Your task to perform on an android device: What's the weather going to be tomorrow? Image 0: 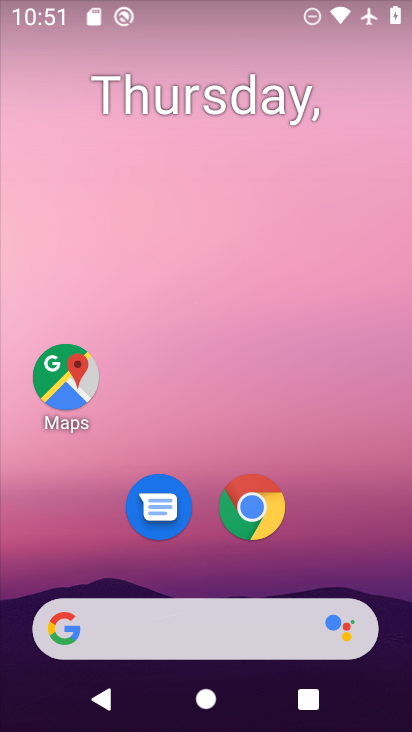
Step 0: drag from (336, 546) to (246, 10)
Your task to perform on an android device: What's the weather going to be tomorrow? Image 1: 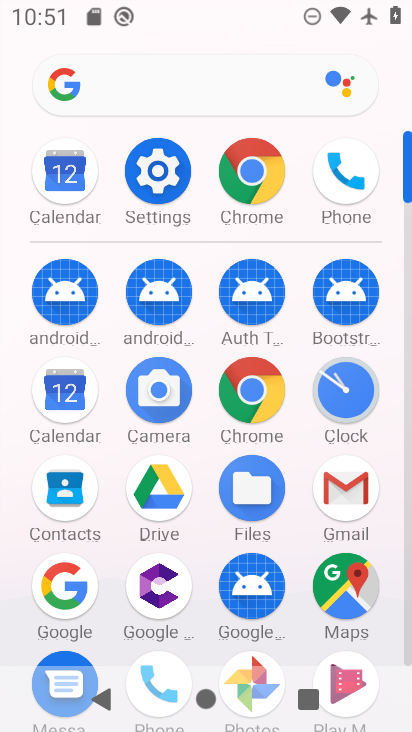
Step 1: drag from (8, 476) to (8, 224)
Your task to perform on an android device: What's the weather going to be tomorrow? Image 2: 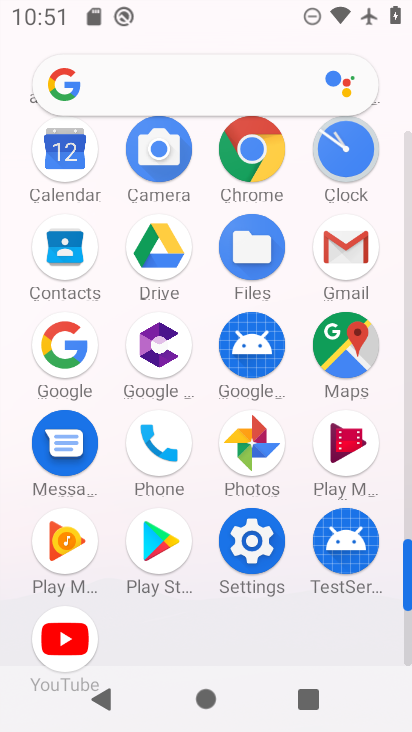
Step 2: click (254, 148)
Your task to perform on an android device: What's the weather going to be tomorrow? Image 3: 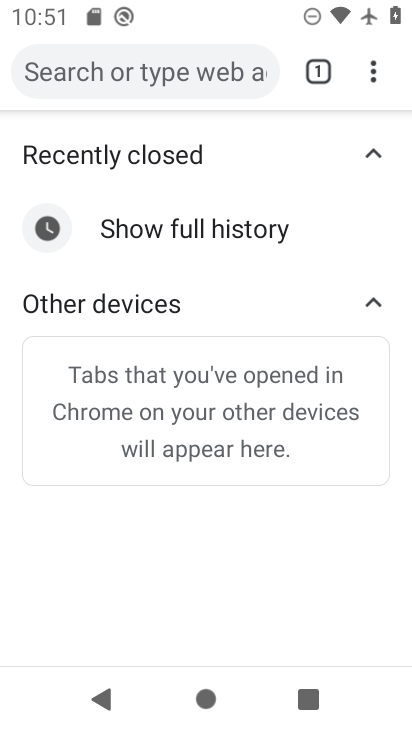
Step 3: click (145, 70)
Your task to perform on an android device: What's the weather going to be tomorrow? Image 4: 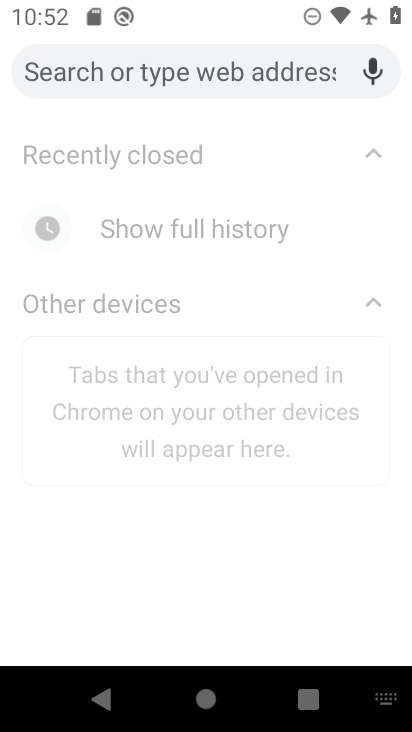
Step 4: type "What's the weather going to be tomorrow?"
Your task to perform on an android device: What's the weather going to be tomorrow? Image 5: 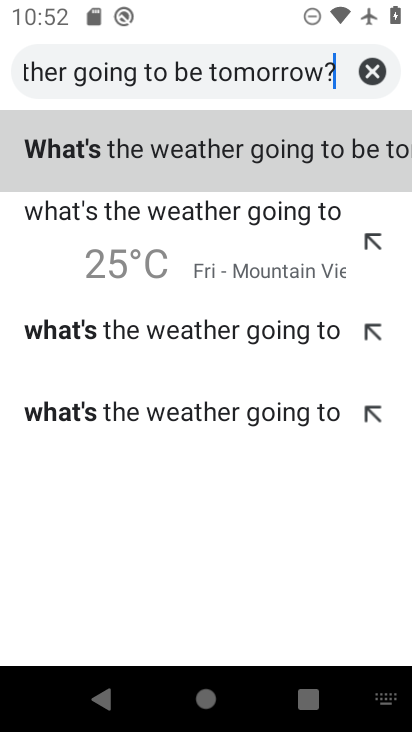
Step 5: type ""
Your task to perform on an android device: What's the weather going to be tomorrow? Image 6: 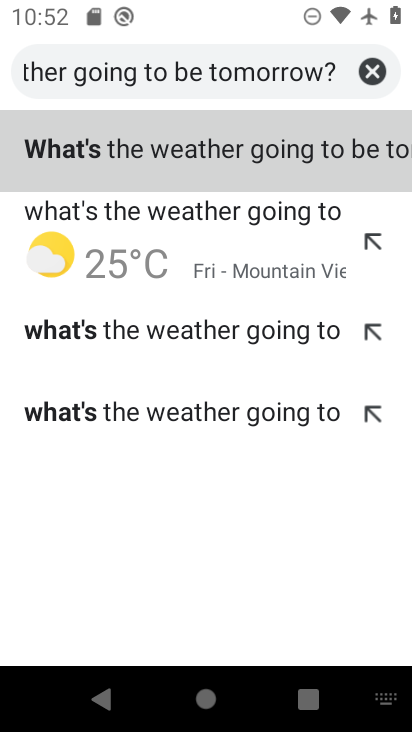
Step 6: click (138, 210)
Your task to perform on an android device: What's the weather going to be tomorrow? Image 7: 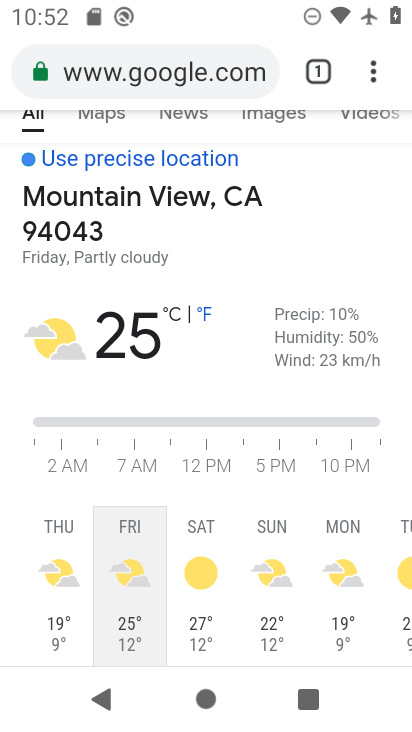
Step 7: task complete